Your task to perform on an android device: turn off location Image 0: 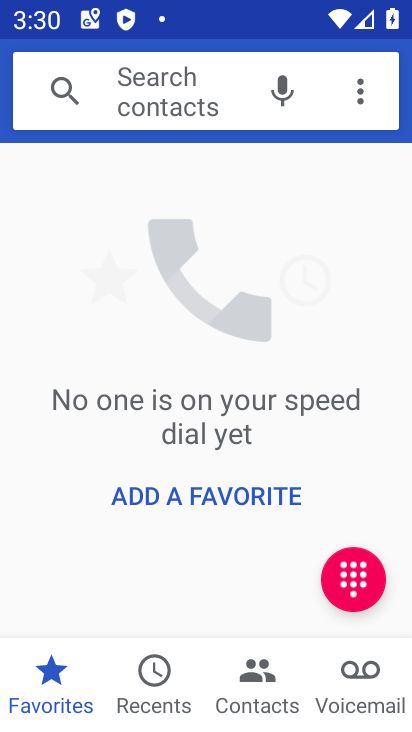
Step 0: press home button
Your task to perform on an android device: turn off location Image 1: 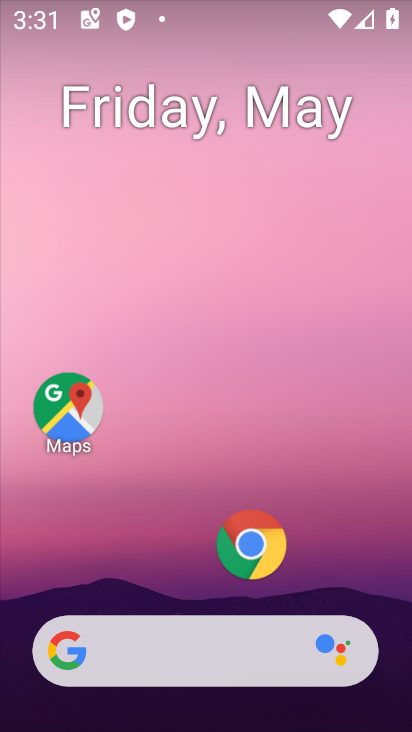
Step 1: drag from (208, 593) to (245, 169)
Your task to perform on an android device: turn off location Image 2: 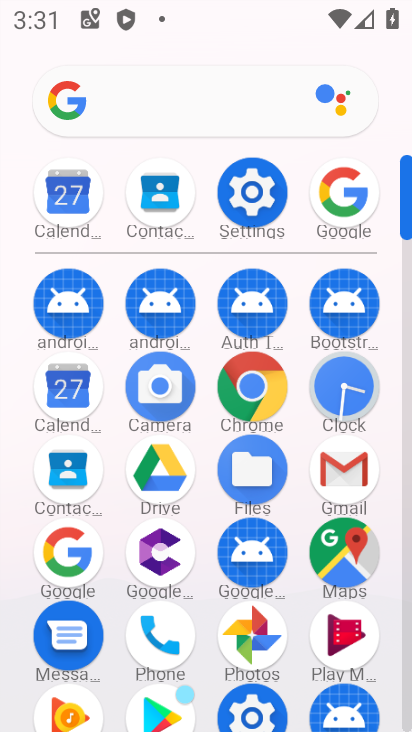
Step 2: click (245, 169)
Your task to perform on an android device: turn off location Image 3: 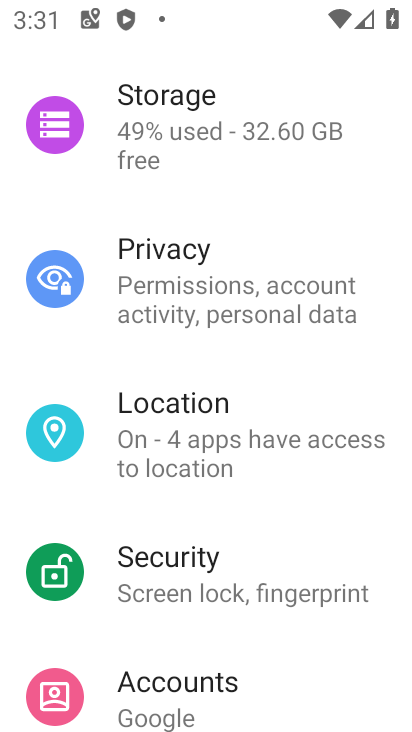
Step 3: click (217, 474)
Your task to perform on an android device: turn off location Image 4: 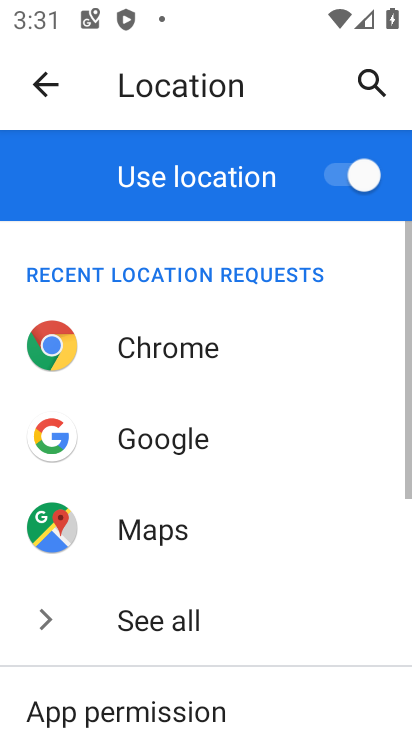
Step 4: click (343, 167)
Your task to perform on an android device: turn off location Image 5: 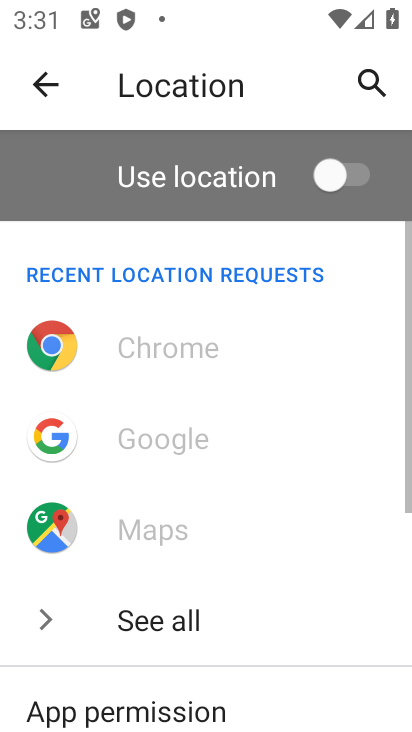
Step 5: task complete